Your task to perform on an android device: allow notifications from all sites in the chrome app Image 0: 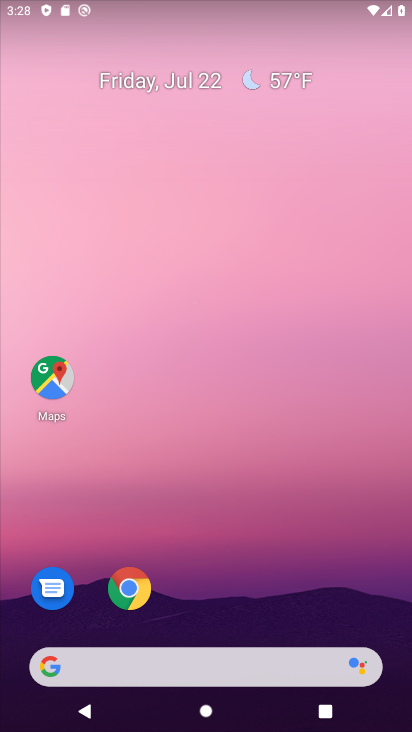
Step 0: click (202, 84)
Your task to perform on an android device: allow notifications from all sites in the chrome app Image 1: 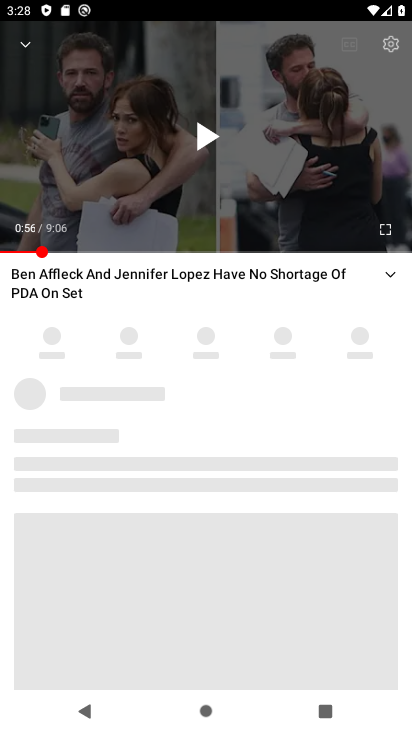
Step 1: press back button
Your task to perform on an android device: allow notifications from all sites in the chrome app Image 2: 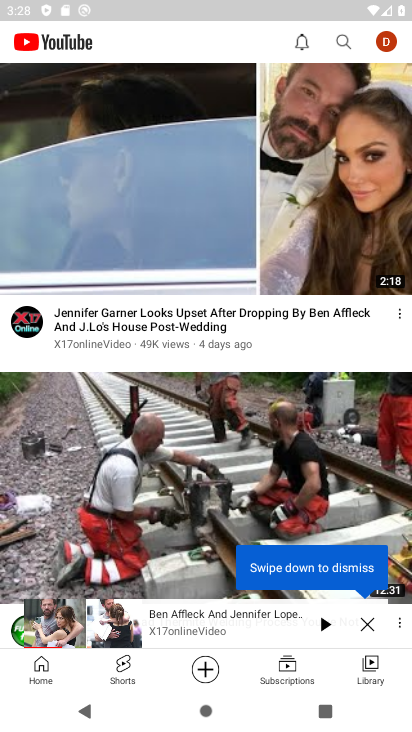
Step 2: press back button
Your task to perform on an android device: allow notifications from all sites in the chrome app Image 3: 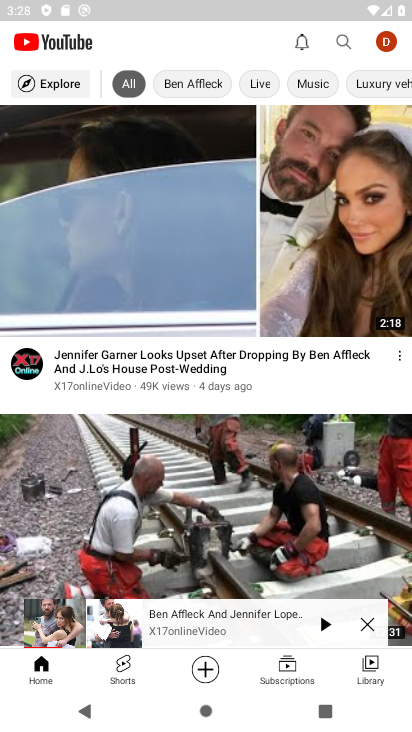
Step 3: press back button
Your task to perform on an android device: allow notifications from all sites in the chrome app Image 4: 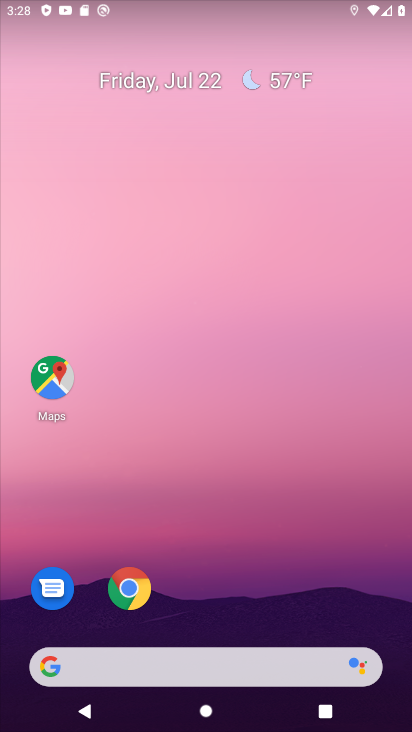
Step 4: drag from (207, 645) to (181, 122)
Your task to perform on an android device: allow notifications from all sites in the chrome app Image 5: 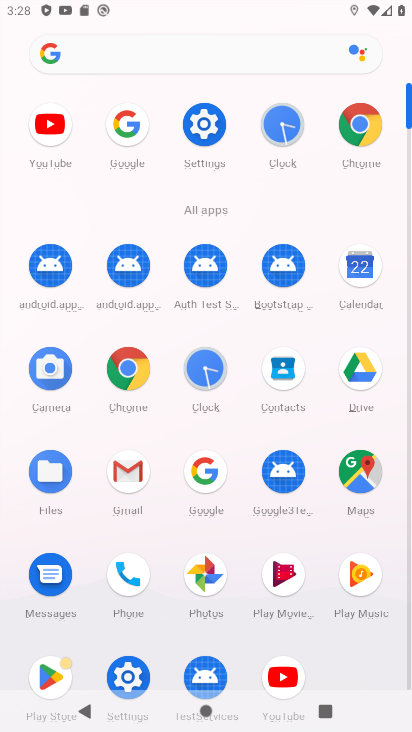
Step 5: click (127, 374)
Your task to perform on an android device: allow notifications from all sites in the chrome app Image 6: 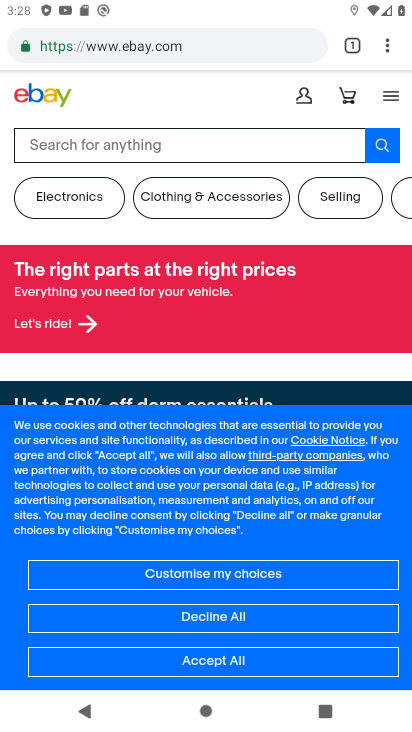
Step 6: drag from (384, 46) to (232, 553)
Your task to perform on an android device: allow notifications from all sites in the chrome app Image 7: 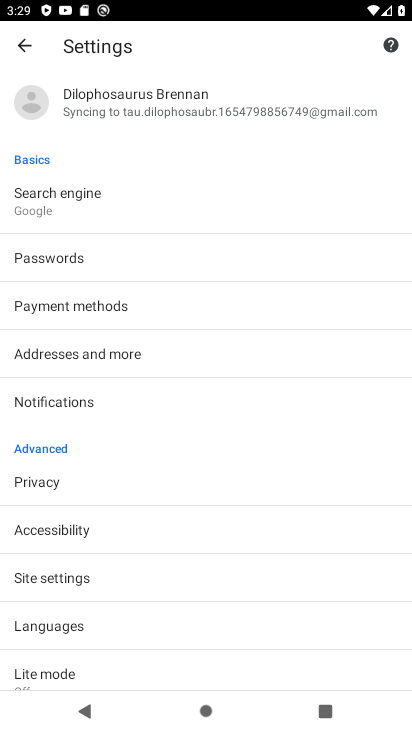
Step 7: click (95, 576)
Your task to perform on an android device: allow notifications from all sites in the chrome app Image 8: 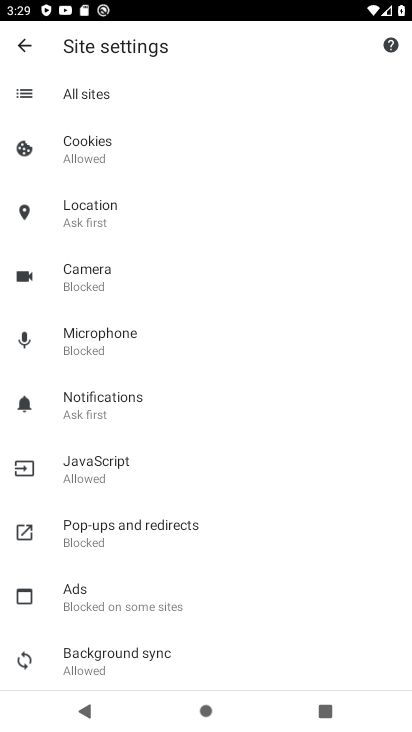
Step 8: drag from (145, 527) to (142, 348)
Your task to perform on an android device: allow notifications from all sites in the chrome app Image 9: 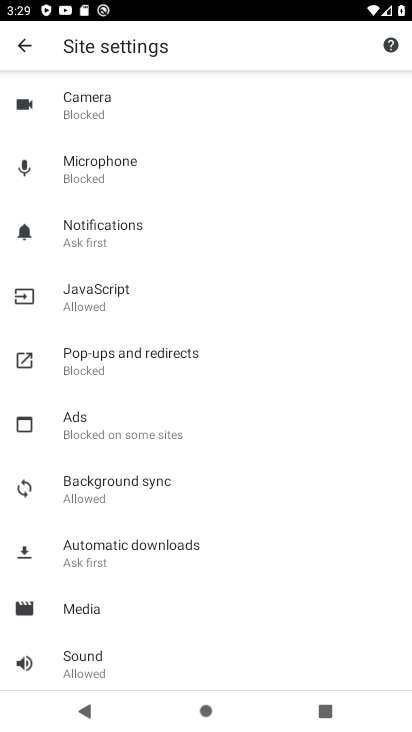
Step 9: click (121, 232)
Your task to perform on an android device: allow notifications from all sites in the chrome app Image 10: 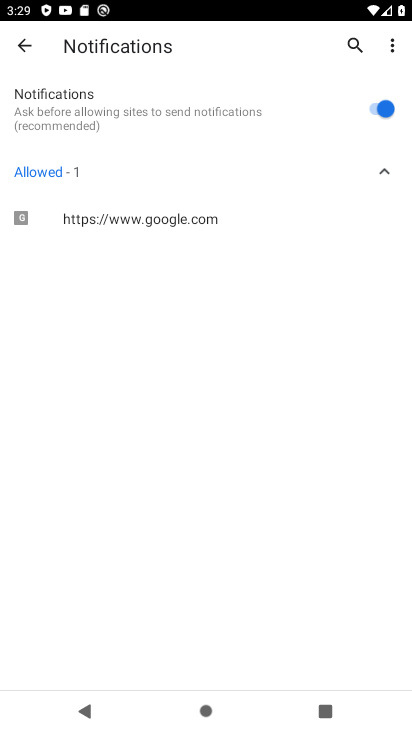
Step 10: click (21, 43)
Your task to perform on an android device: allow notifications from all sites in the chrome app Image 11: 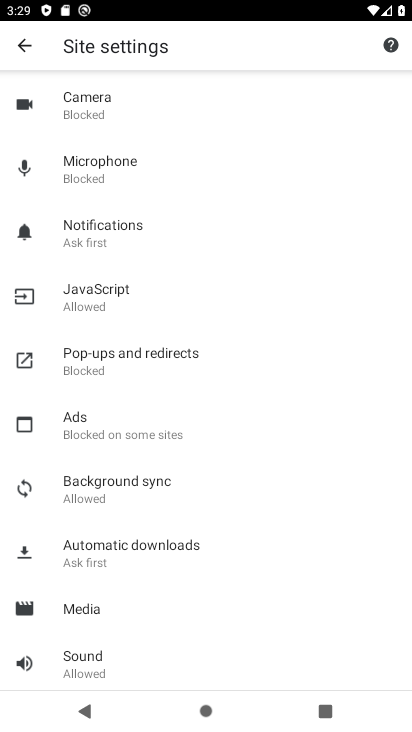
Step 11: click (118, 247)
Your task to perform on an android device: allow notifications from all sites in the chrome app Image 12: 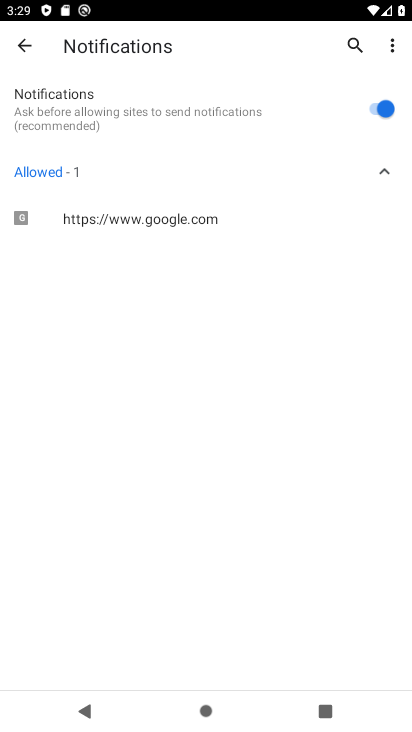
Step 12: task complete